Your task to perform on an android device: toggle notification dots Image 0: 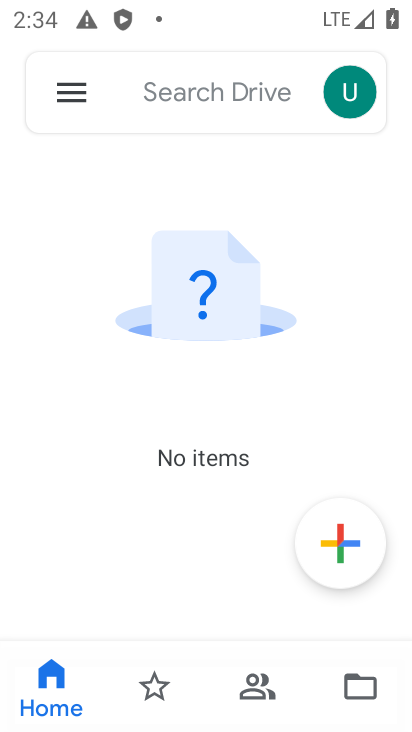
Step 0: press home button
Your task to perform on an android device: toggle notification dots Image 1: 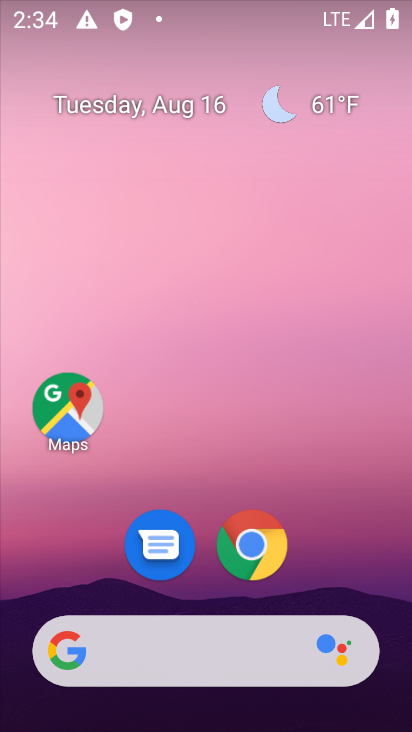
Step 1: drag from (167, 657) to (92, 163)
Your task to perform on an android device: toggle notification dots Image 2: 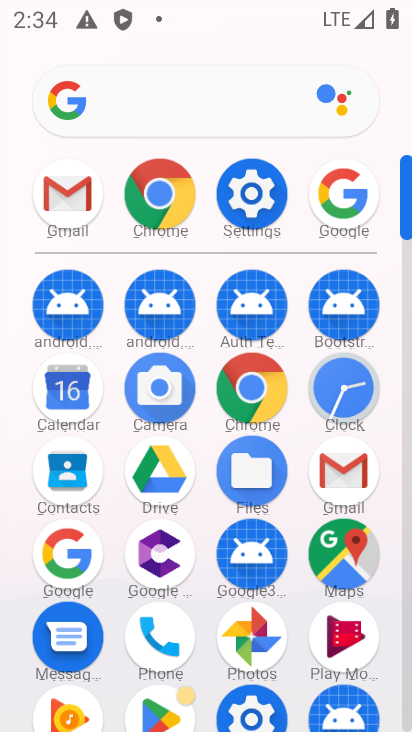
Step 2: click (230, 186)
Your task to perform on an android device: toggle notification dots Image 3: 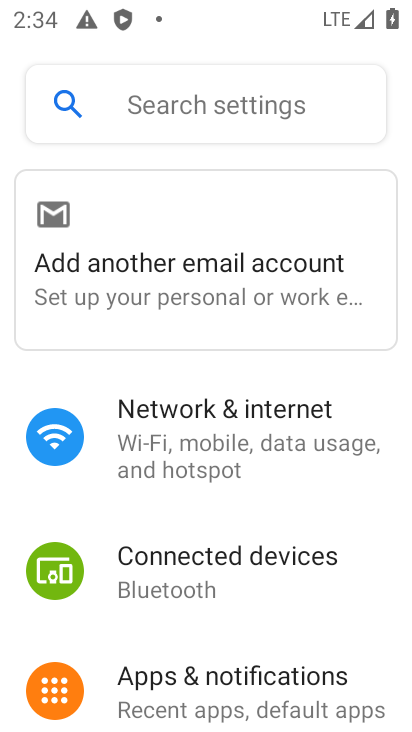
Step 3: click (174, 705)
Your task to perform on an android device: toggle notification dots Image 4: 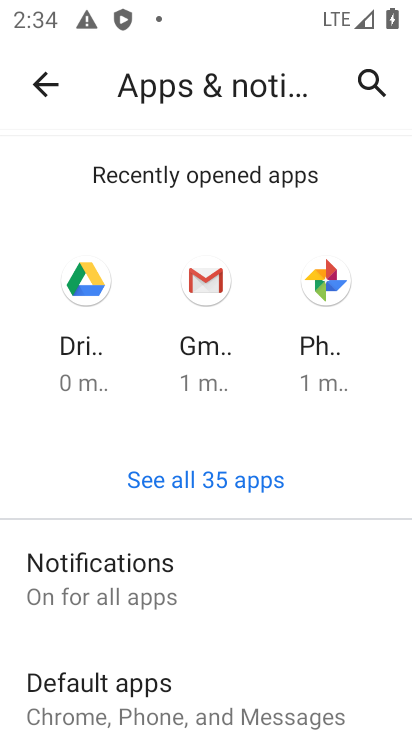
Step 4: click (133, 575)
Your task to perform on an android device: toggle notification dots Image 5: 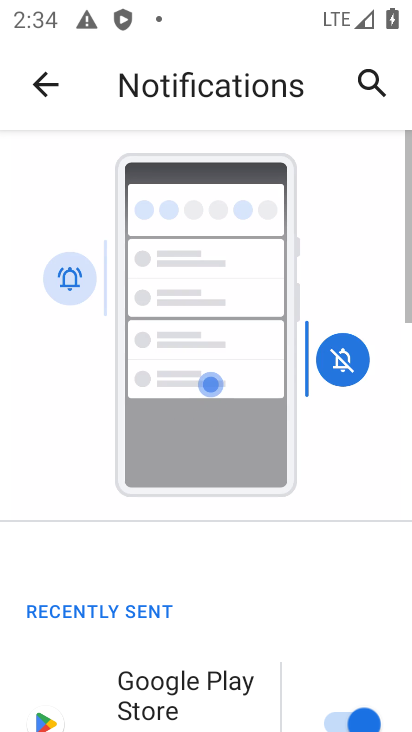
Step 5: drag from (177, 665) to (148, 235)
Your task to perform on an android device: toggle notification dots Image 6: 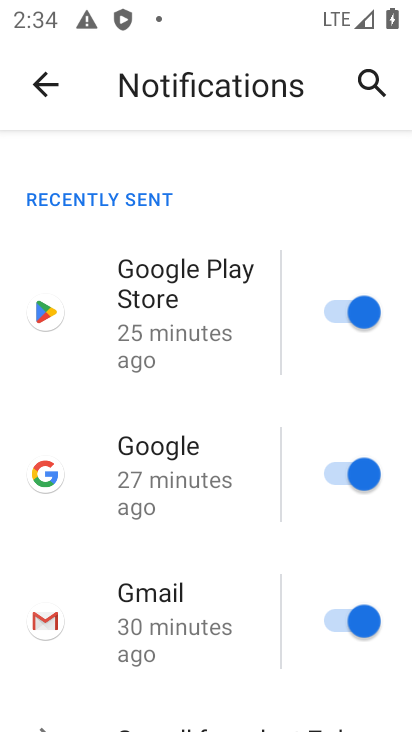
Step 6: drag from (180, 622) to (134, 192)
Your task to perform on an android device: toggle notification dots Image 7: 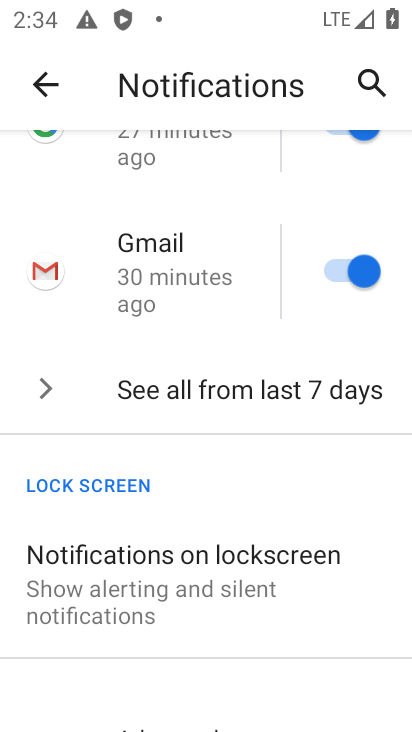
Step 7: drag from (158, 646) to (114, 343)
Your task to perform on an android device: toggle notification dots Image 8: 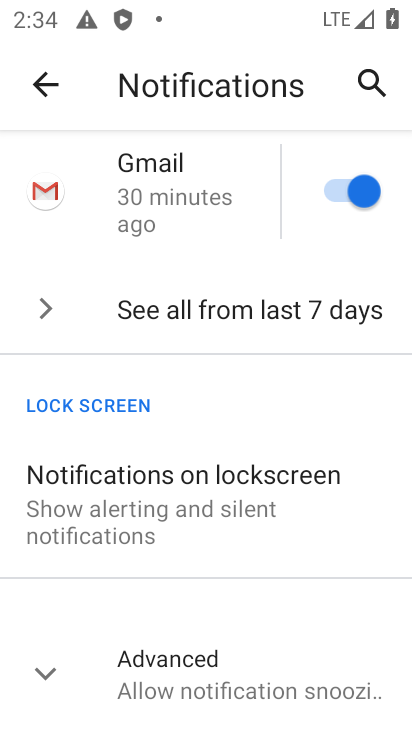
Step 8: click (112, 690)
Your task to perform on an android device: toggle notification dots Image 9: 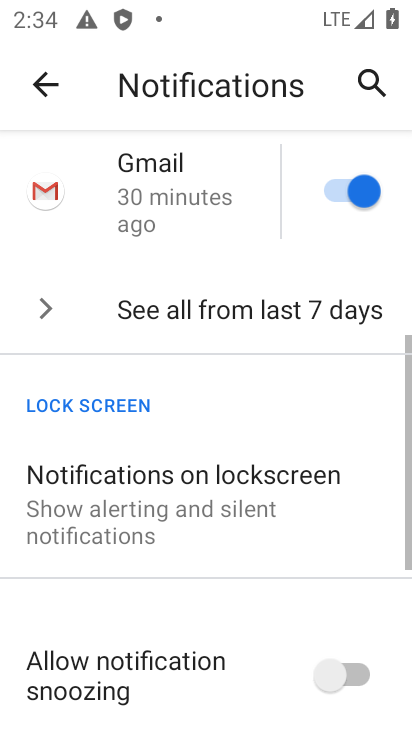
Step 9: drag from (272, 715) to (209, 399)
Your task to perform on an android device: toggle notification dots Image 10: 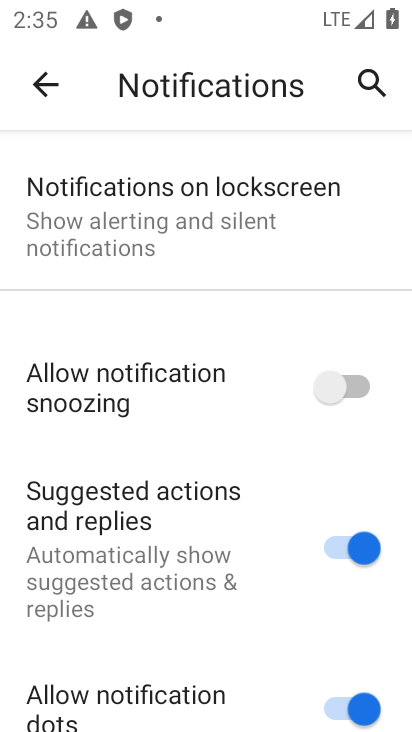
Step 10: click (342, 712)
Your task to perform on an android device: toggle notification dots Image 11: 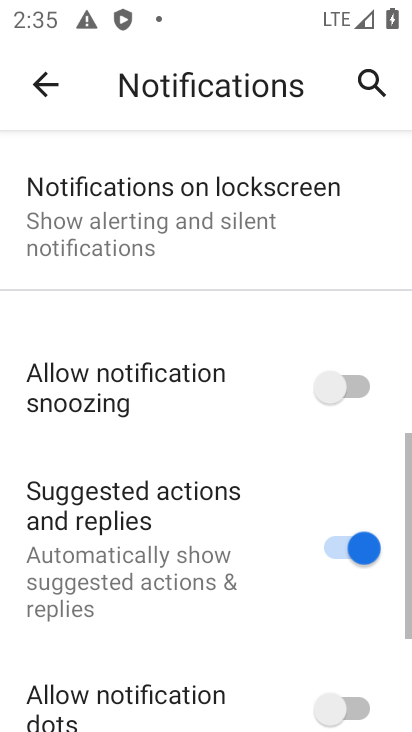
Step 11: task complete